Your task to perform on an android device: see tabs open on other devices in the chrome app Image 0: 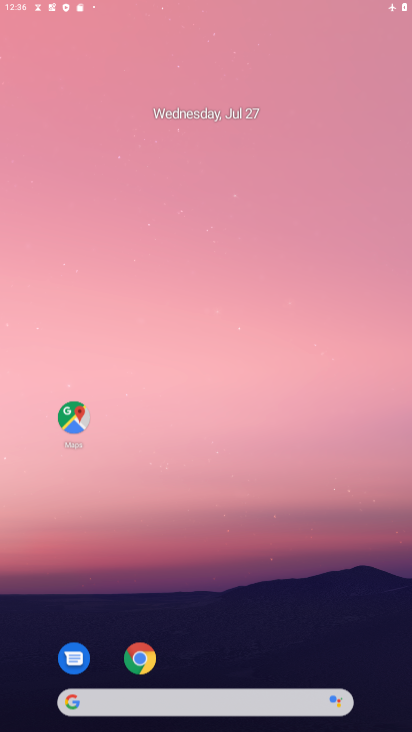
Step 0: press home button
Your task to perform on an android device: see tabs open on other devices in the chrome app Image 1: 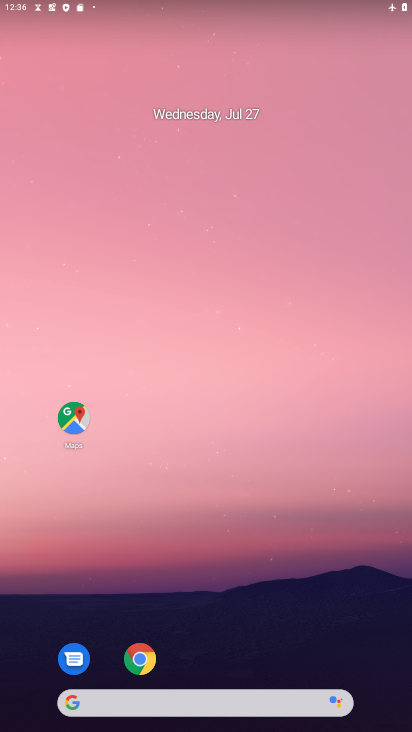
Step 1: click (137, 655)
Your task to perform on an android device: see tabs open on other devices in the chrome app Image 2: 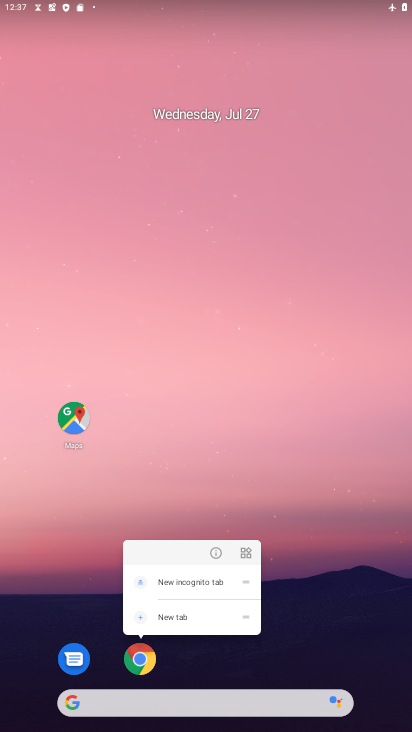
Step 2: click (141, 654)
Your task to perform on an android device: see tabs open on other devices in the chrome app Image 3: 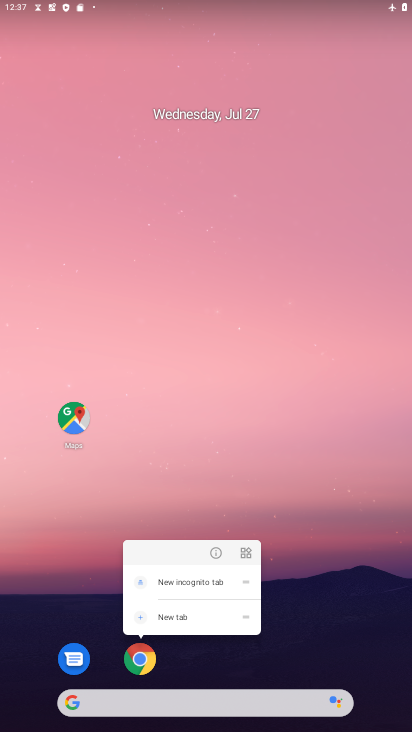
Step 3: click (142, 657)
Your task to perform on an android device: see tabs open on other devices in the chrome app Image 4: 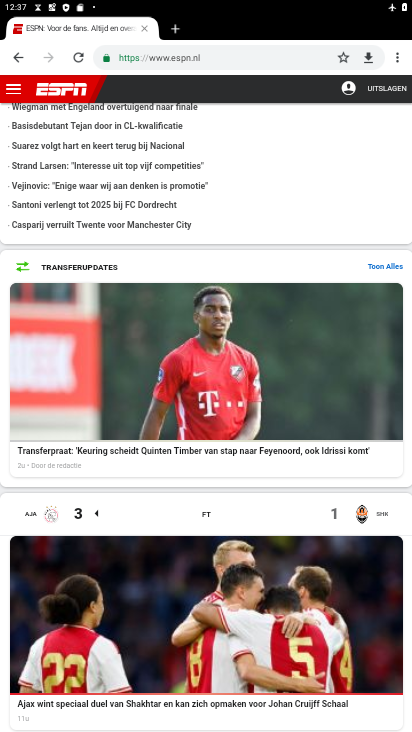
Step 4: click (400, 53)
Your task to perform on an android device: see tabs open on other devices in the chrome app Image 5: 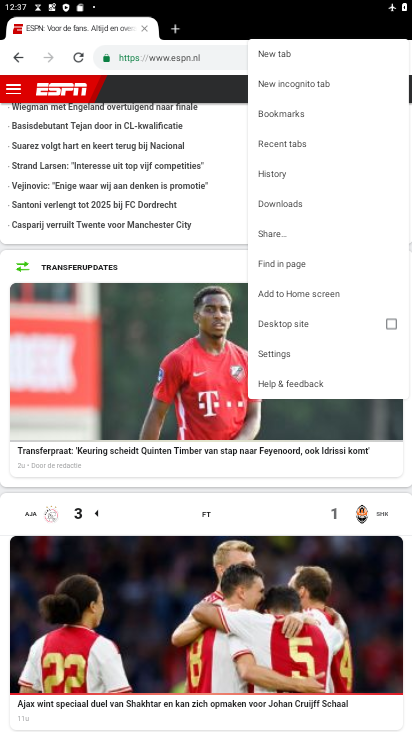
Step 5: click (307, 140)
Your task to perform on an android device: see tabs open on other devices in the chrome app Image 6: 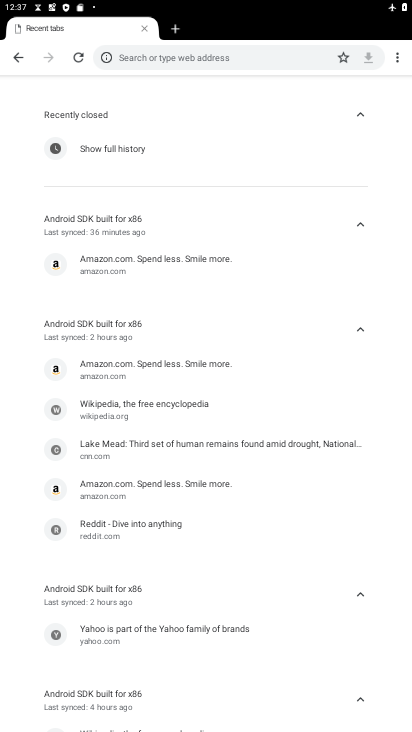
Step 6: task complete